Your task to perform on an android device: Open battery settings Image 0: 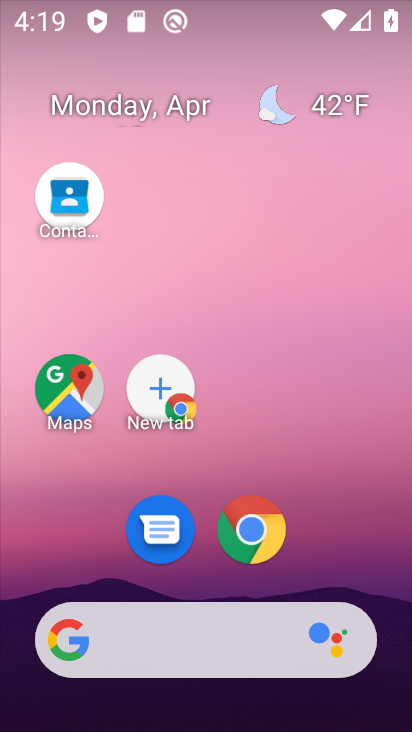
Step 0: drag from (194, 560) to (281, 6)
Your task to perform on an android device: Open battery settings Image 1: 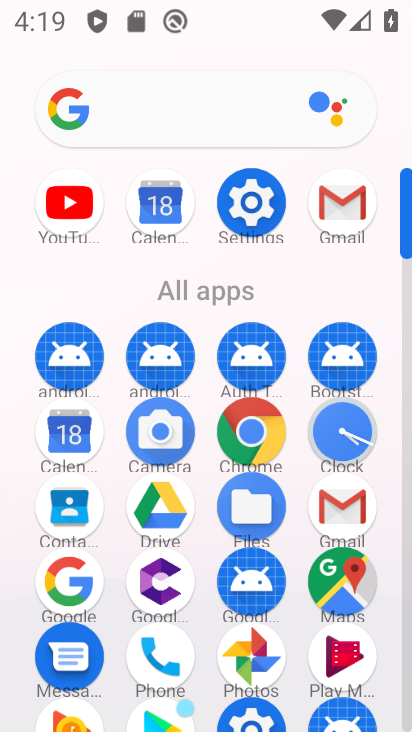
Step 1: click (248, 203)
Your task to perform on an android device: Open battery settings Image 2: 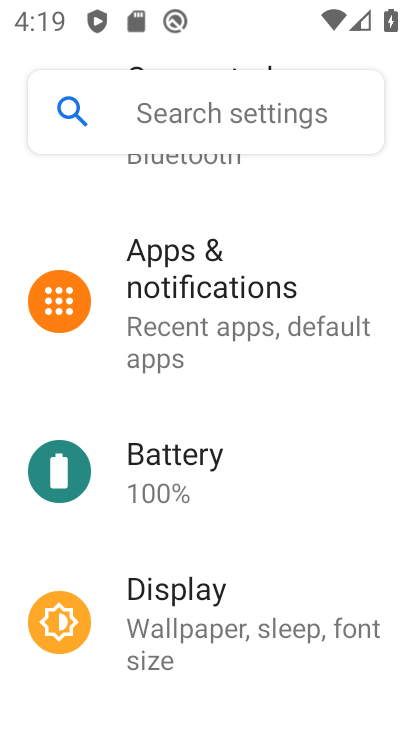
Step 2: click (159, 475)
Your task to perform on an android device: Open battery settings Image 3: 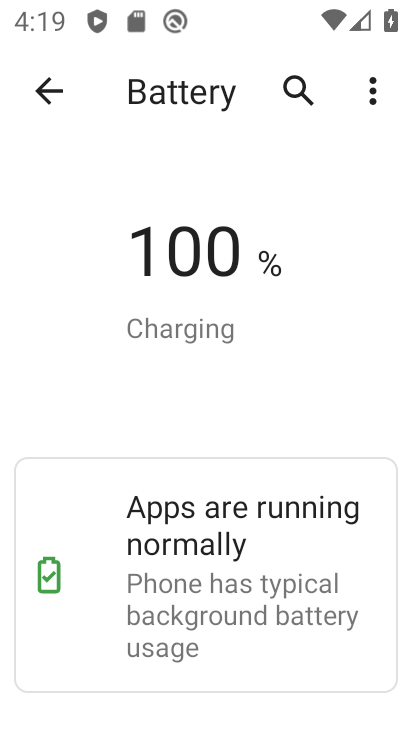
Step 3: task complete